Your task to perform on an android device: toggle data saver in the chrome app Image 0: 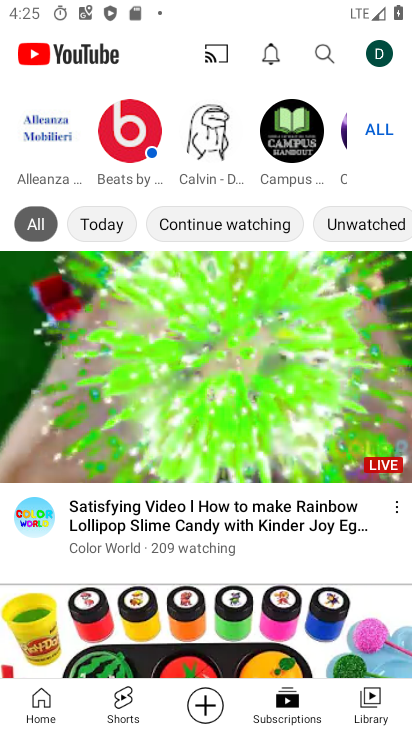
Step 0: press home button
Your task to perform on an android device: toggle data saver in the chrome app Image 1: 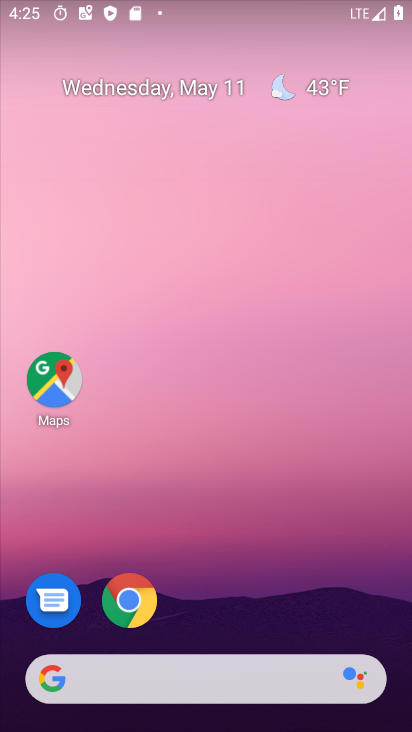
Step 1: click (135, 603)
Your task to perform on an android device: toggle data saver in the chrome app Image 2: 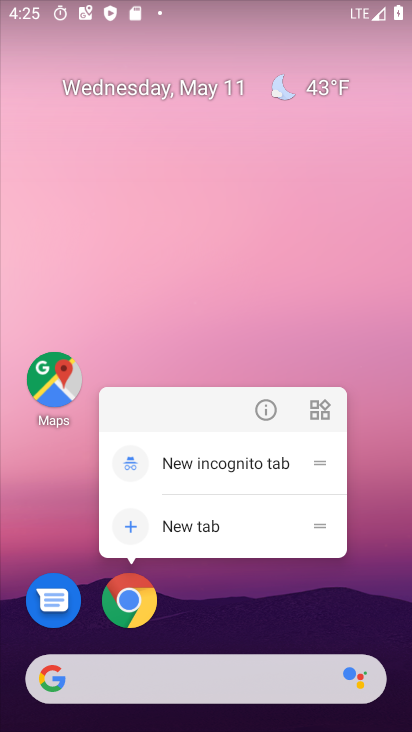
Step 2: click (123, 596)
Your task to perform on an android device: toggle data saver in the chrome app Image 3: 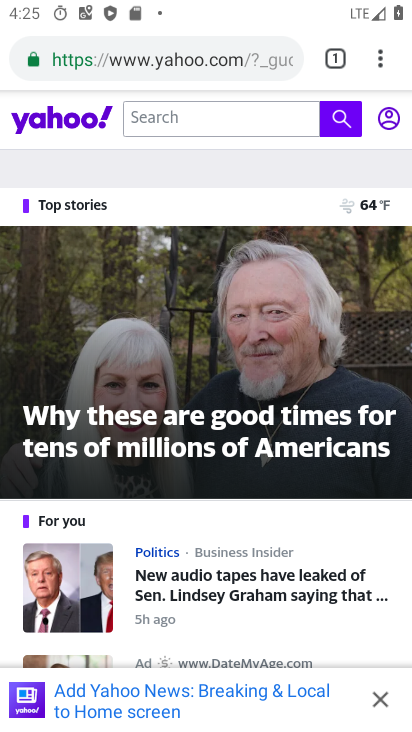
Step 3: drag from (384, 60) to (183, 635)
Your task to perform on an android device: toggle data saver in the chrome app Image 4: 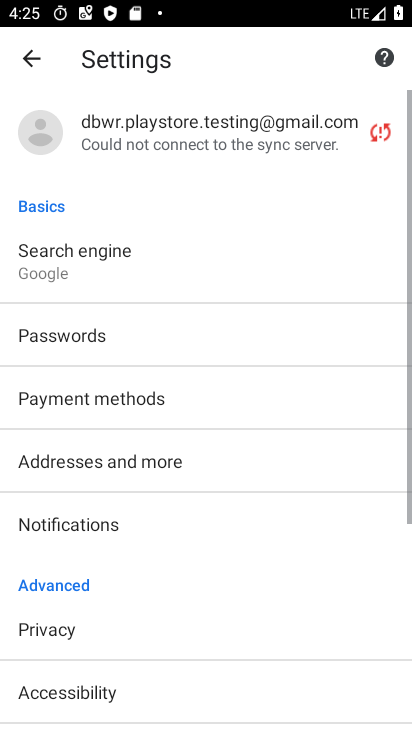
Step 4: drag from (166, 631) to (166, 234)
Your task to perform on an android device: toggle data saver in the chrome app Image 5: 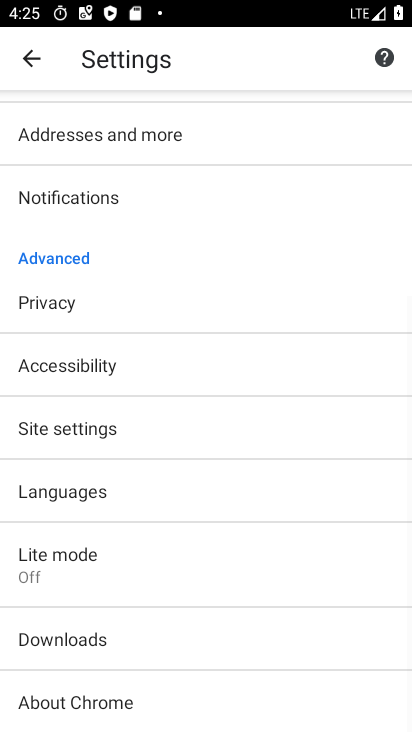
Step 5: drag from (143, 556) to (144, 410)
Your task to perform on an android device: toggle data saver in the chrome app Image 6: 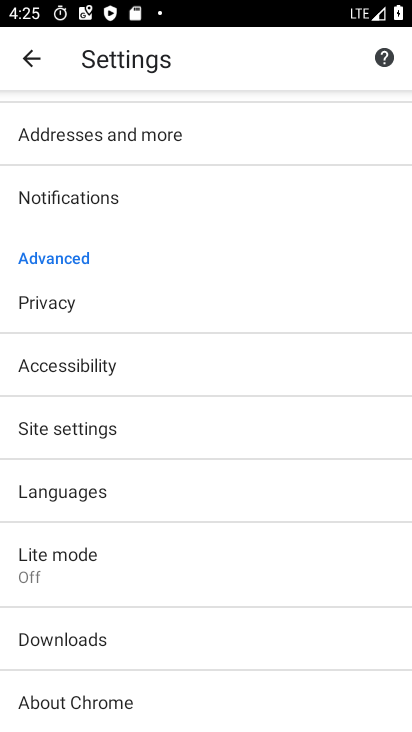
Step 6: click (53, 565)
Your task to perform on an android device: toggle data saver in the chrome app Image 7: 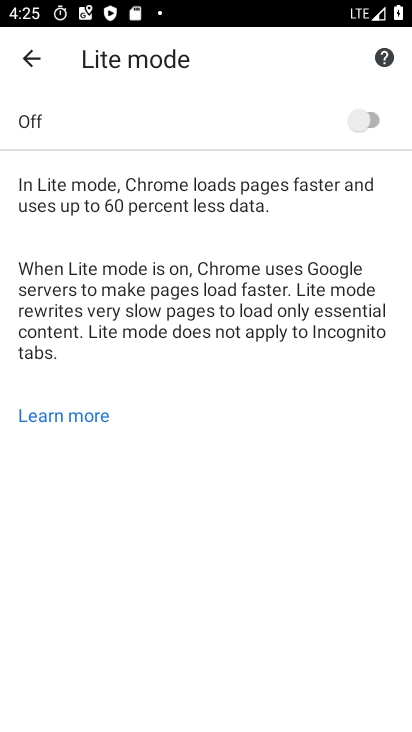
Step 7: click (363, 119)
Your task to perform on an android device: toggle data saver in the chrome app Image 8: 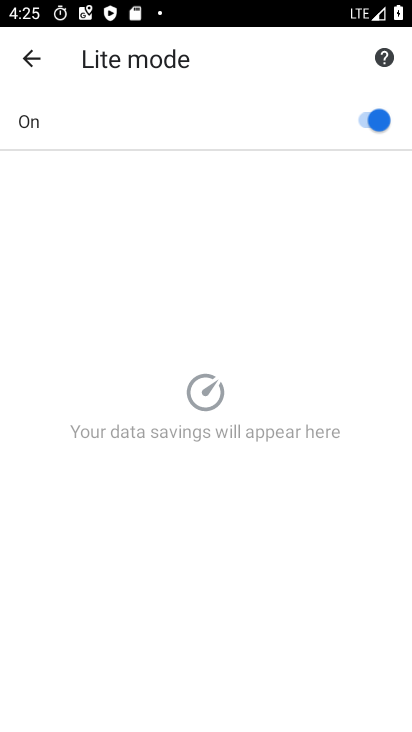
Step 8: task complete